Your task to perform on an android device: Open display settings Image 0: 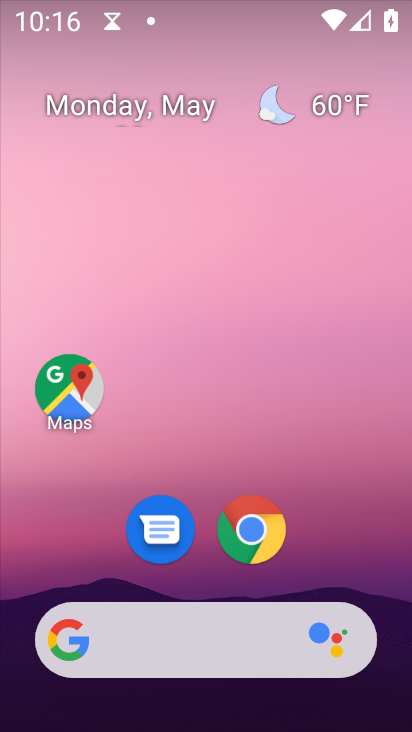
Step 0: drag from (287, 563) to (231, 133)
Your task to perform on an android device: Open display settings Image 1: 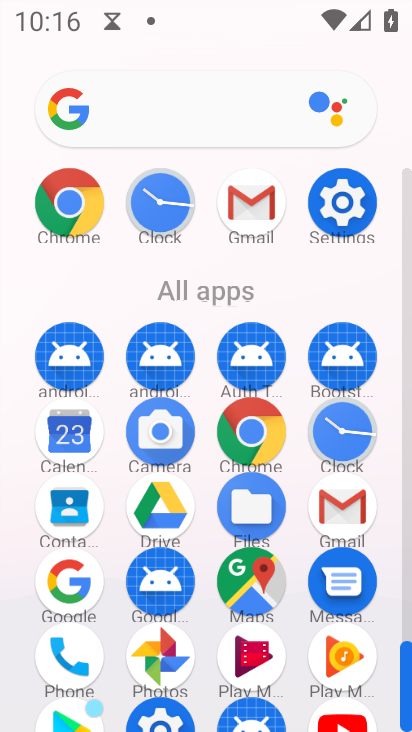
Step 1: click (338, 217)
Your task to perform on an android device: Open display settings Image 2: 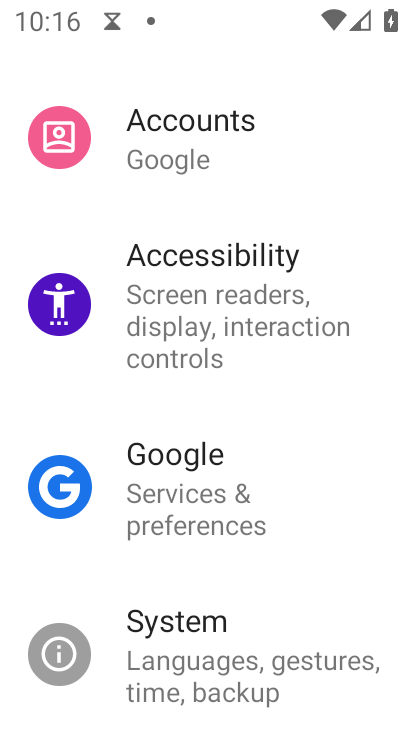
Step 2: drag from (191, 245) to (185, 629)
Your task to perform on an android device: Open display settings Image 3: 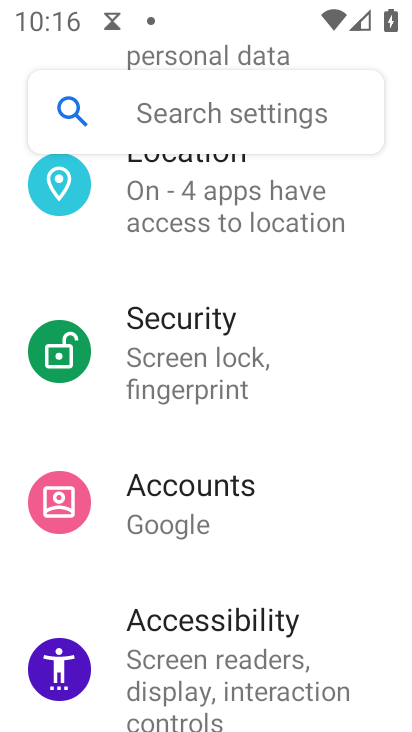
Step 3: drag from (216, 290) to (219, 617)
Your task to perform on an android device: Open display settings Image 4: 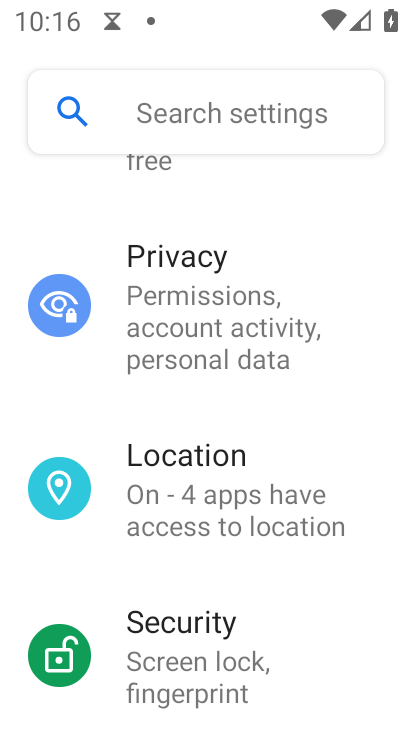
Step 4: drag from (263, 252) to (241, 623)
Your task to perform on an android device: Open display settings Image 5: 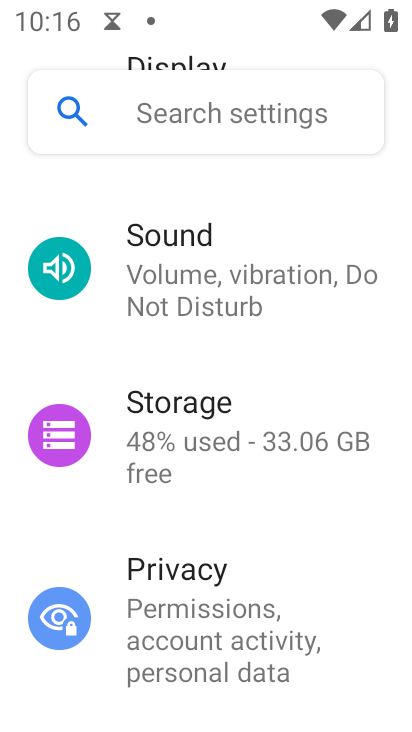
Step 5: drag from (229, 289) to (222, 607)
Your task to perform on an android device: Open display settings Image 6: 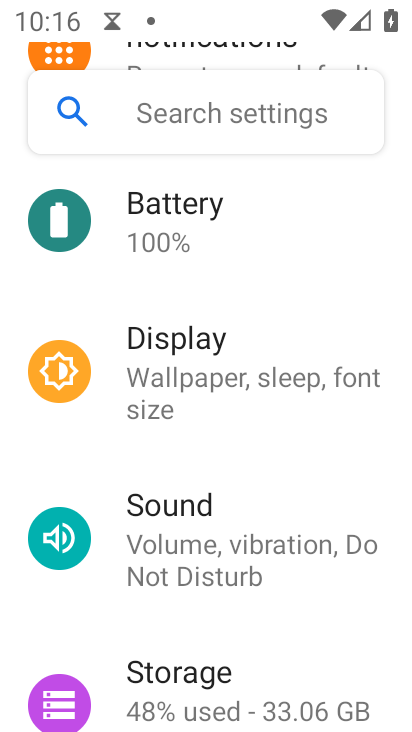
Step 6: click (170, 394)
Your task to perform on an android device: Open display settings Image 7: 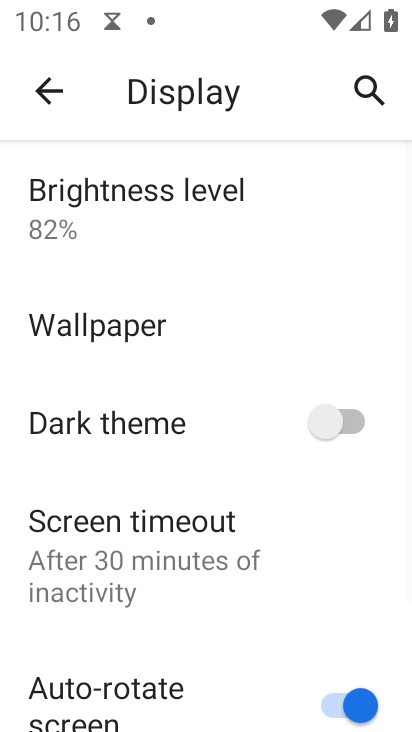
Step 7: task complete